Your task to perform on an android device: Show me popular videos on Youtube Image 0: 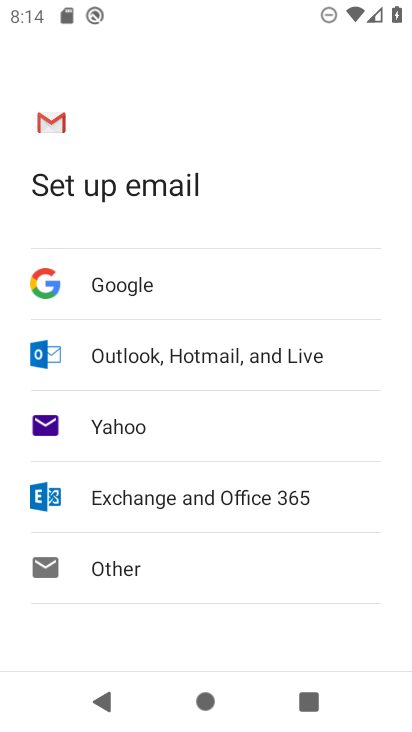
Step 0: press home button
Your task to perform on an android device: Show me popular videos on Youtube Image 1: 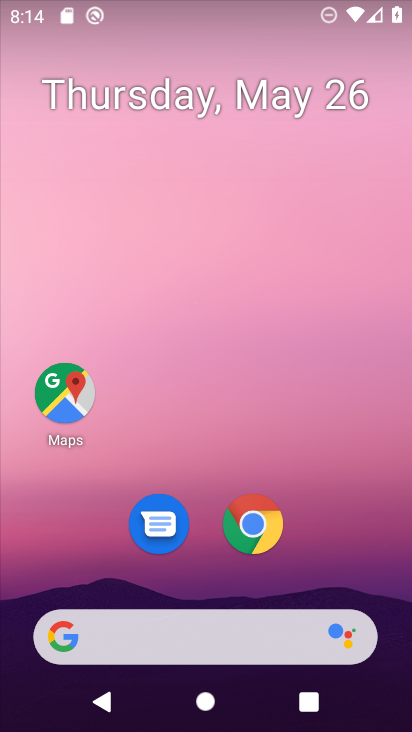
Step 1: drag from (302, 495) to (273, 0)
Your task to perform on an android device: Show me popular videos on Youtube Image 2: 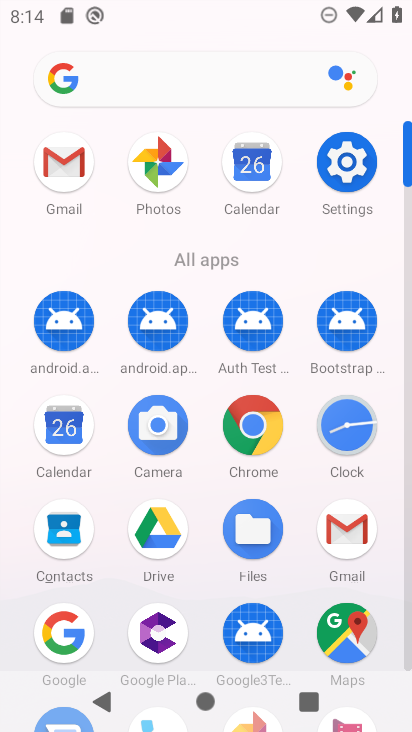
Step 2: drag from (311, 530) to (302, 120)
Your task to perform on an android device: Show me popular videos on Youtube Image 3: 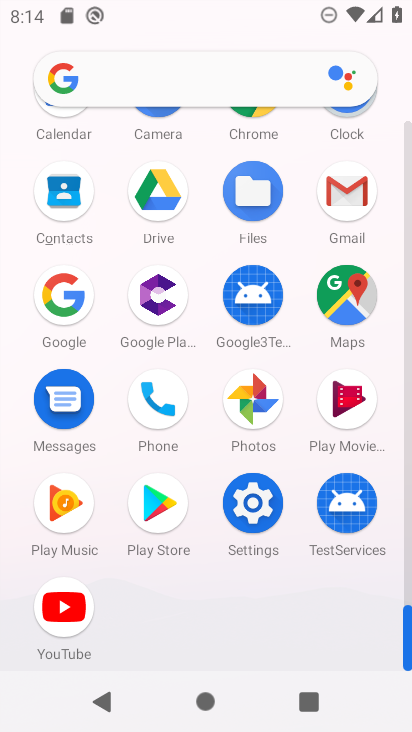
Step 3: click (60, 596)
Your task to perform on an android device: Show me popular videos on Youtube Image 4: 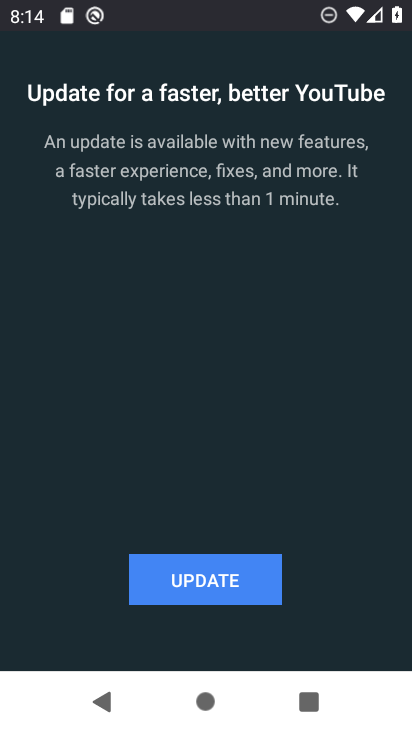
Step 4: click (166, 577)
Your task to perform on an android device: Show me popular videos on Youtube Image 5: 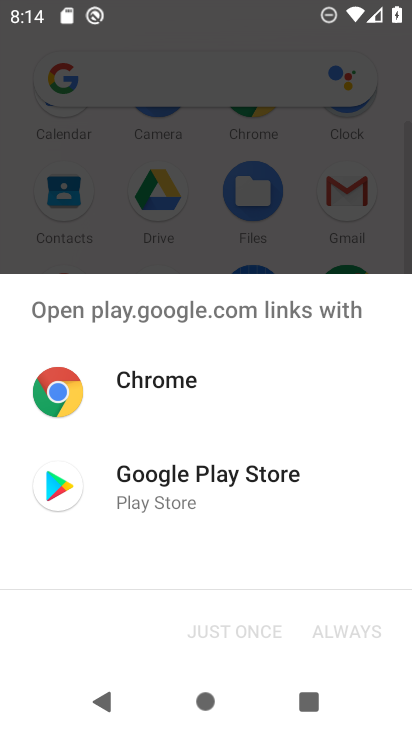
Step 5: click (111, 480)
Your task to perform on an android device: Show me popular videos on Youtube Image 6: 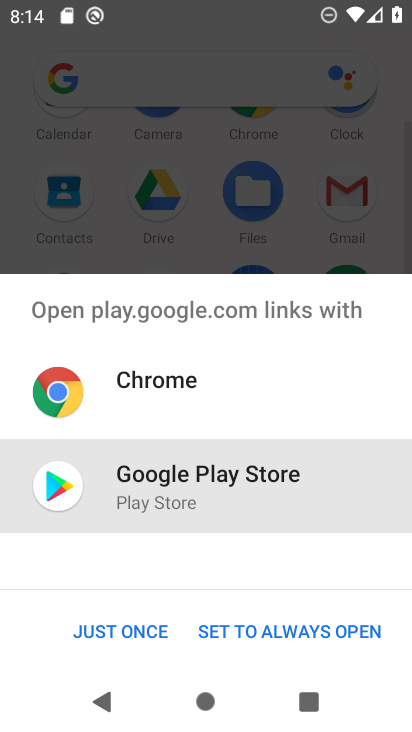
Step 6: click (139, 621)
Your task to perform on an android device: Show me popular videos on Youtube Image 7: 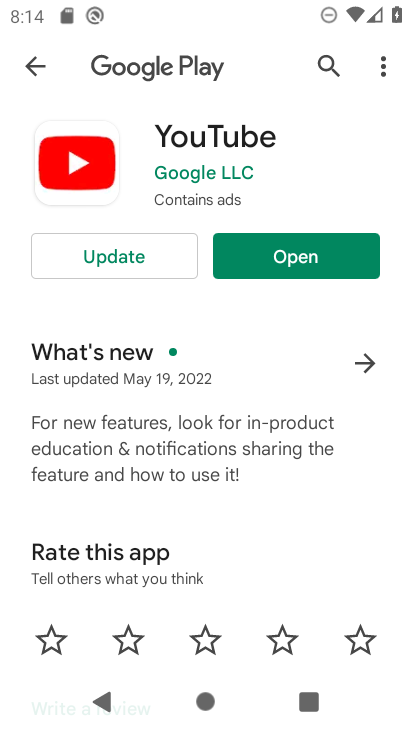
Step 7: click (138, 243)
Your task to perform on an android device: Show me popular videos on Youtube Image 8: 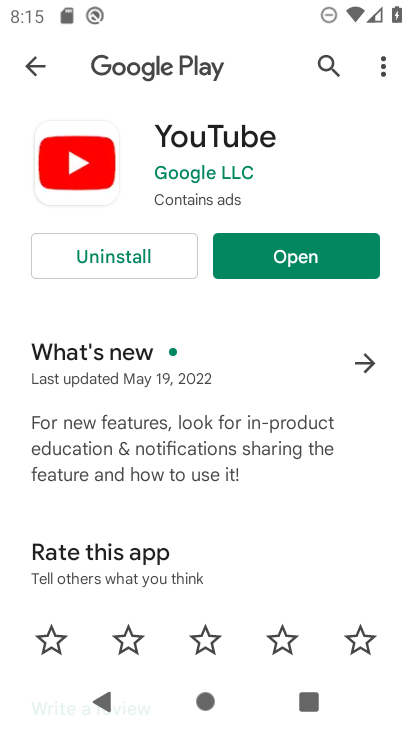
Step 8: click (357, 247)
Your task to perform on an android device: Show me popular videos on Youtube Image 9: 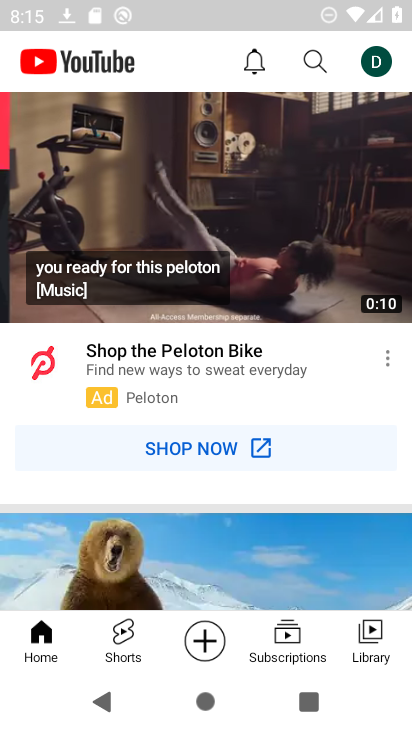
Step 9: click (310, 61)
Your task to perform on an android device: Show me popular videos on Youtube Image 10: 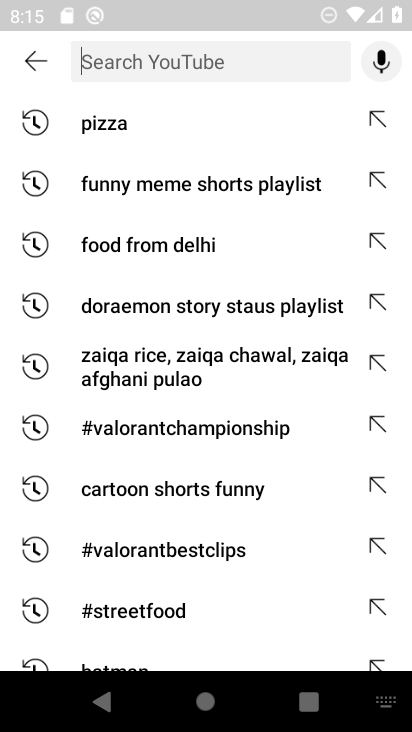
Step 10: type "popular videos"
Your task to perform on an android device: Show me popular videos on Youtube Image 11: 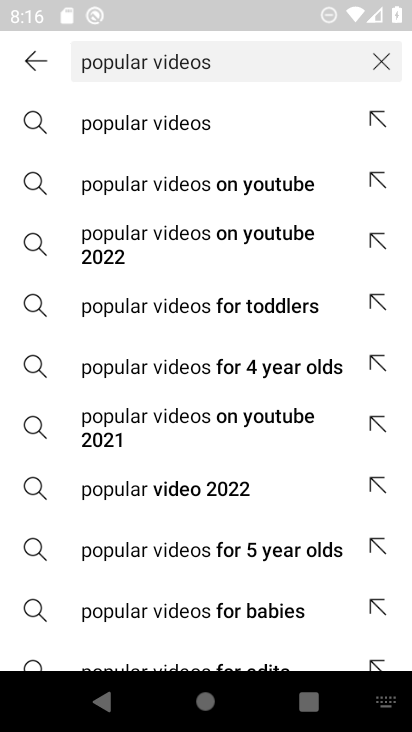
Step 11: click (294, 176)
Your task to perform on an android device: Show me popular videos on Youtube Image 12: 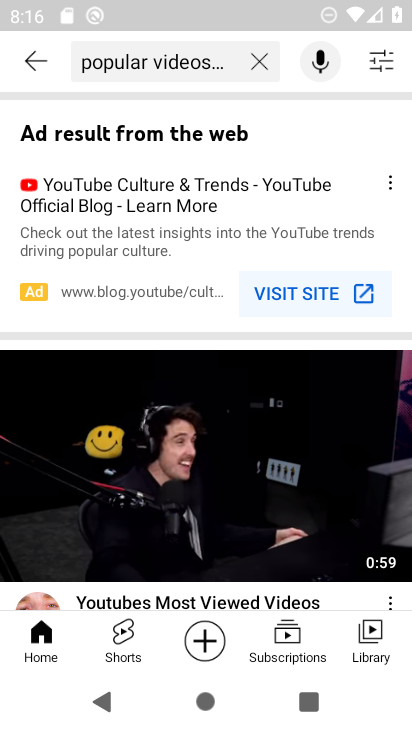
Step 12: task complete